Your task to perform on an android device: Go to privacy settings Image 0: 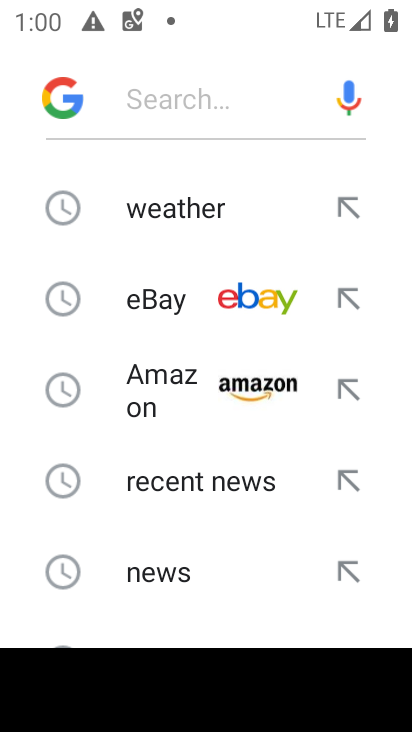
Step 0: press home button
Your task to perform on an android device: Go to privacy settings Image 1: 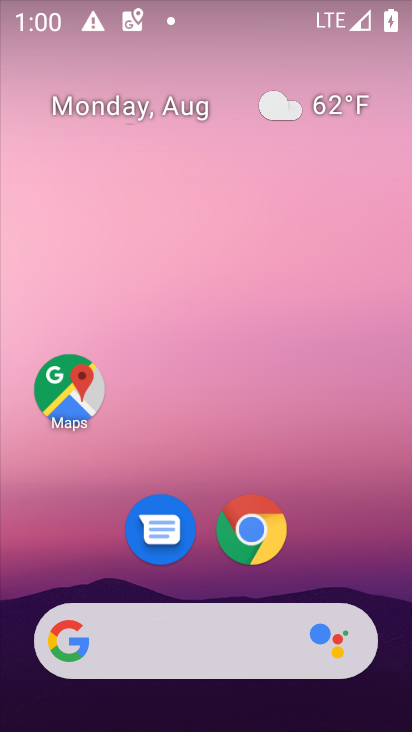
Step 1: drag from (184, 580) to (182, 221)
Your task to perform on an android device: Go to privacy settings Image 2: 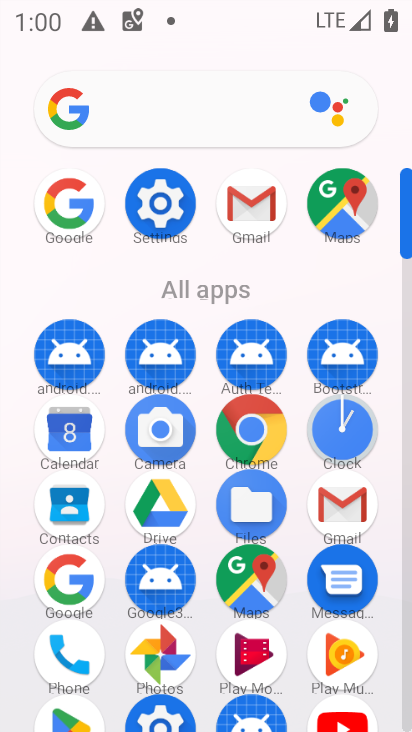
Step 2: click (153, 207)
Your task to perform on an android device: Go to privacy settings Image 3: 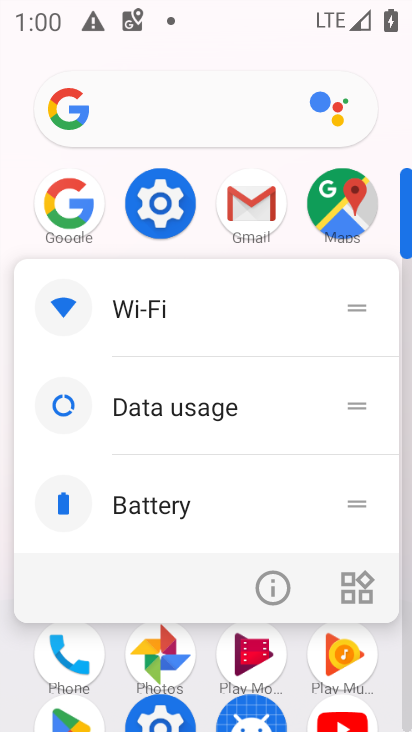
Step 3: click (164, 198)
Your task to perform on an android device: Go to privacy settings Image 4: 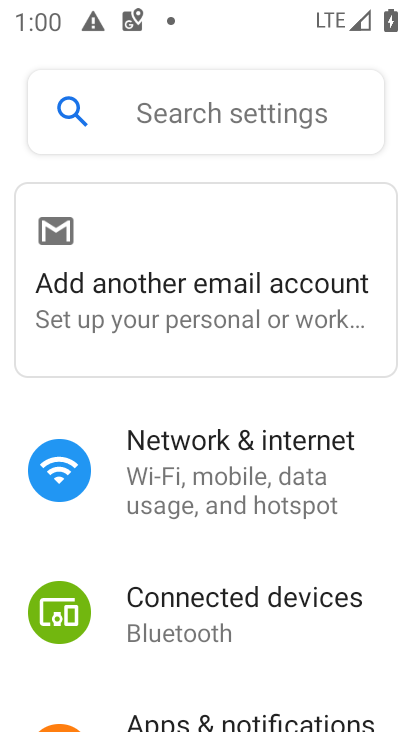
Step 4: drag from (153, 643) to (147, 276)
Your task to perform on an android device: Go to privacy settings Image 5: 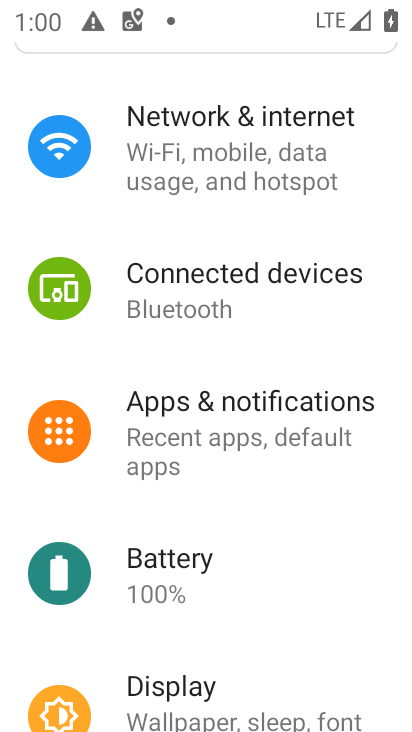
Step 5: drag from (164, 700) to (157, 327)
Your task to perform on an android device: Go to privacy settings Image 6: 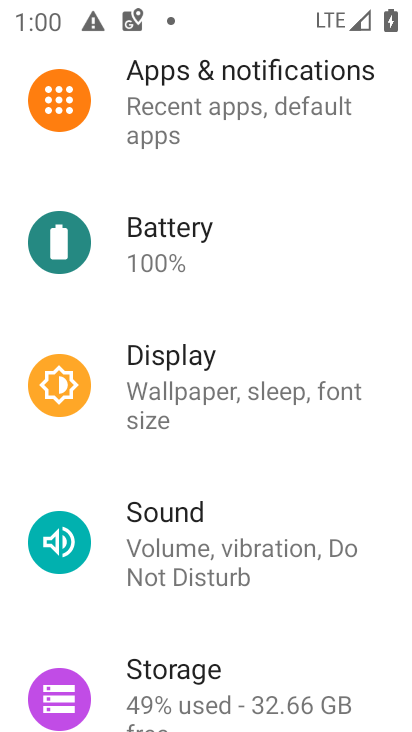
Step 6: drag from (163, 601) to (144, 353)
Your task to perform on an android device: Go to privacy settings Image 7: 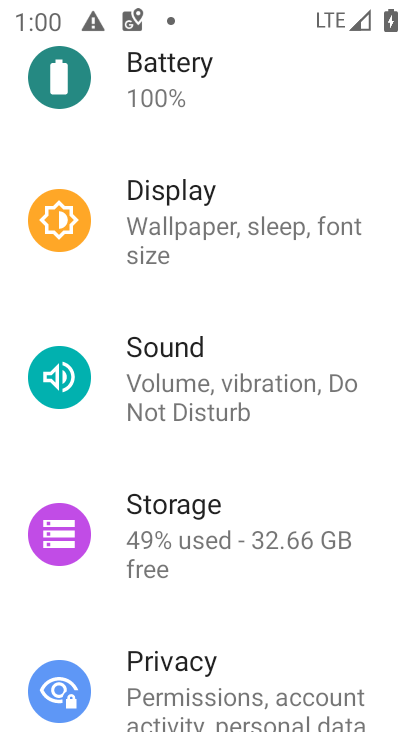
Step 7: click (154, 677)
Your task to perform on an android device: Go to privacy settings Image 8: 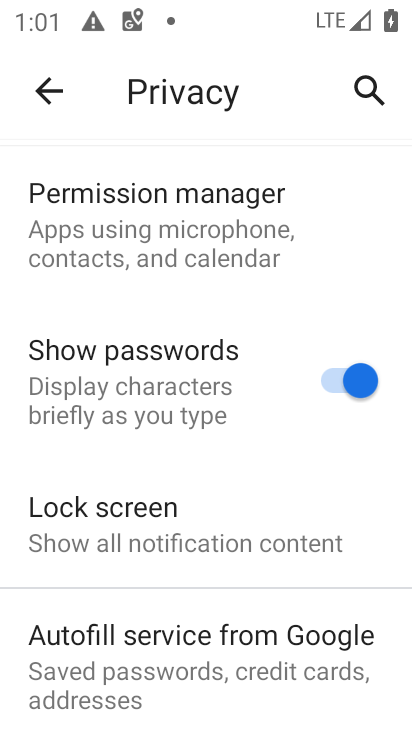
Step 8: task complete